Your task to perform on an android device: change the clock display to digital Image 0: 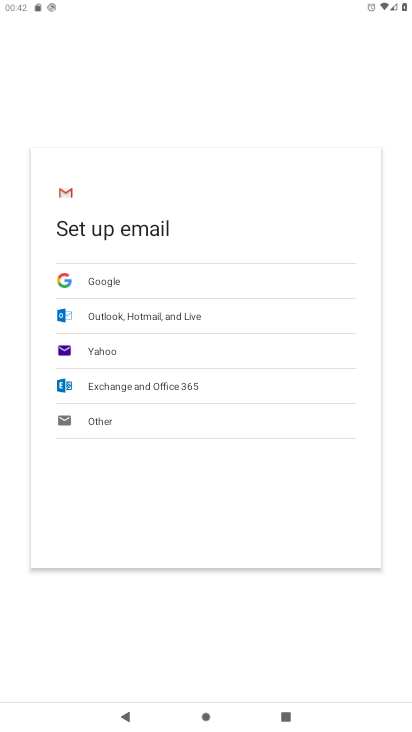
Step 0: press home button
Your task to perform on an android device: change the clock display to digital Image 1: 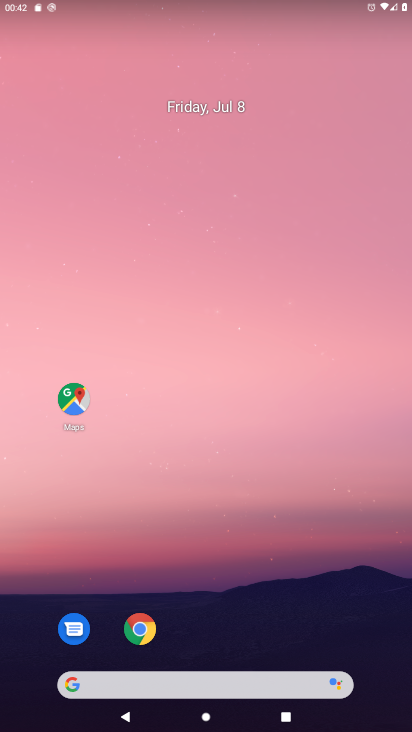
Step 1: drag from (325, 578) to (277, 8)
Your task to perform on an android device: change the clock display to digital Image 2: 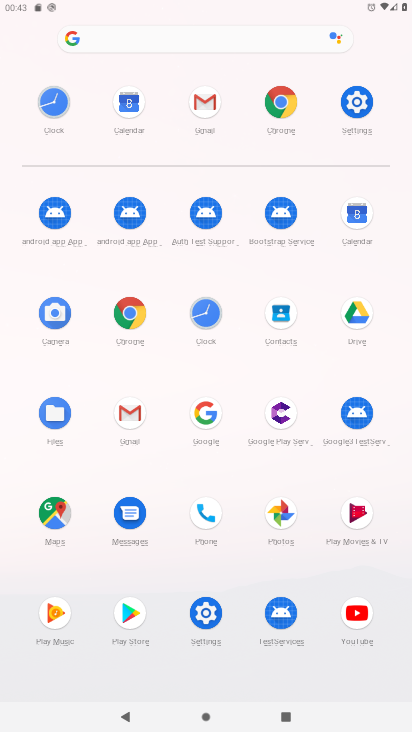
Step 2: click (203, 321)
Your task to perform on an android device: change the clock display to digital Image 3: 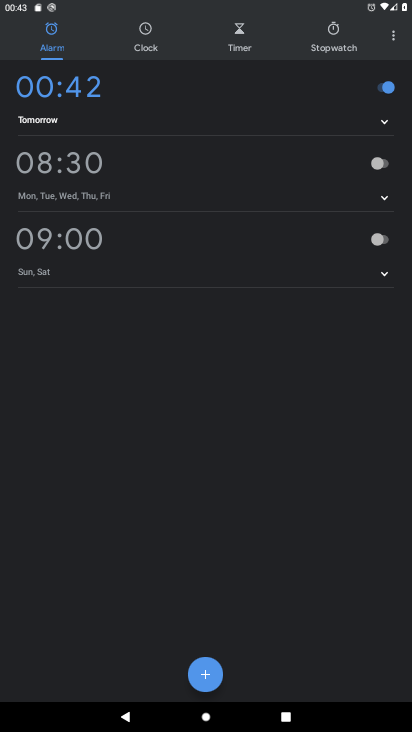
Step 3: click (390, 32)
Your task to perform on an android device: change the clock display to digital Image 4: 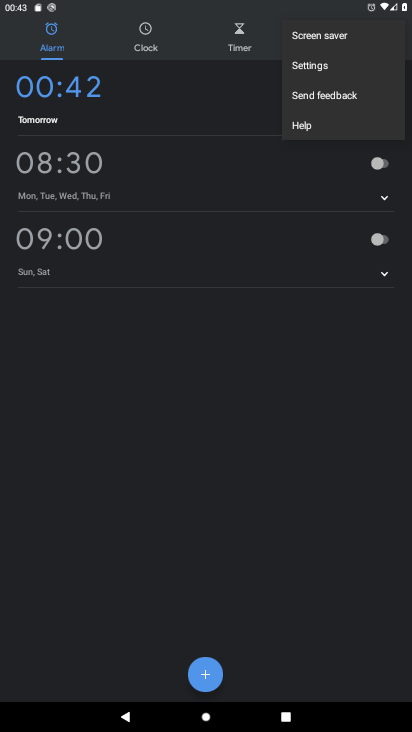
Step 4: click (333, 64)
Your task to perform on an android device: change the clock display to digital Image 5: 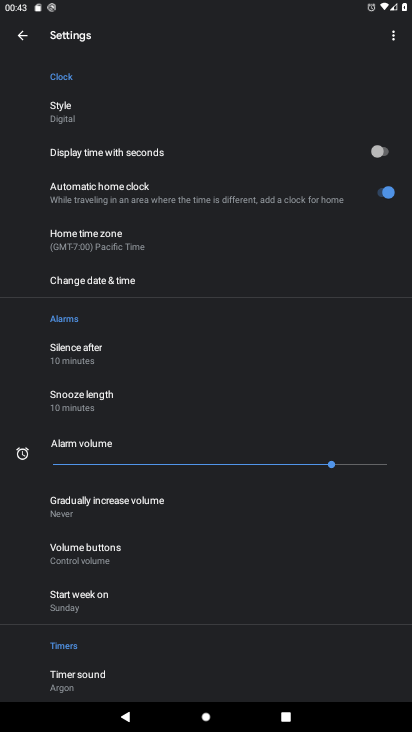
Step 5: click (81, 113)
Your task to perform on an android device: change the clock display to digital Image 6: 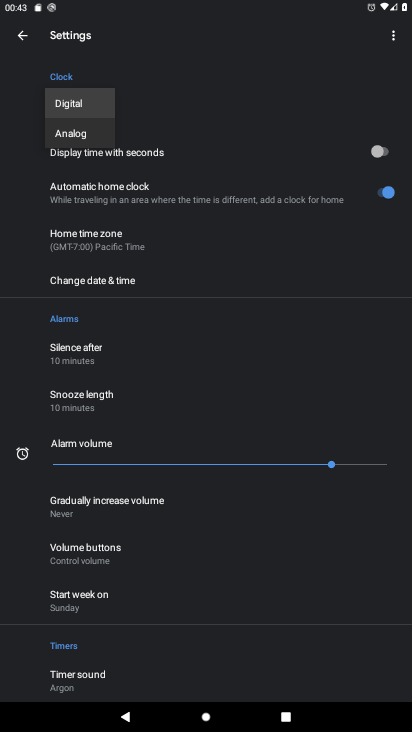
Step 6: click (86, 103)
Your task to perform on an android device: change the clock display to digital Image 7: 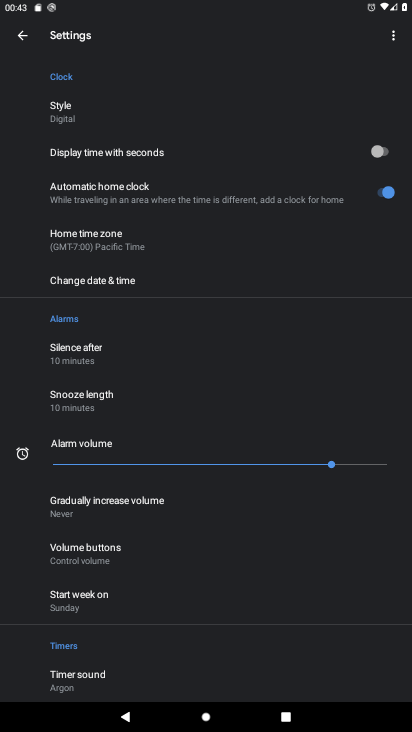
Step 7: task complete